Your task to perform on an android device: Go to Maps Image 0: 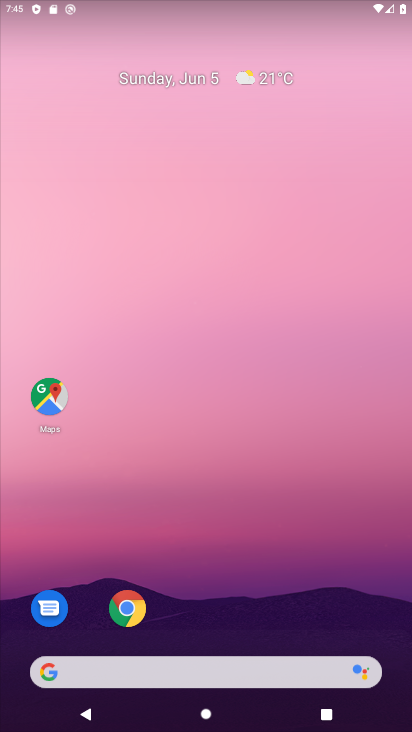
Step 0: click (45, 387)
Your task to perform on an android device: Go to Maps Image 1: 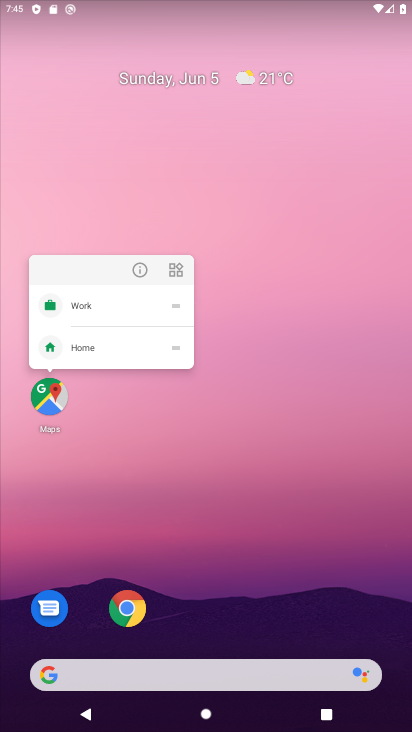
Step 1: click (45, 387)
Your task to perform on an android device: Go to Maps Image 2: 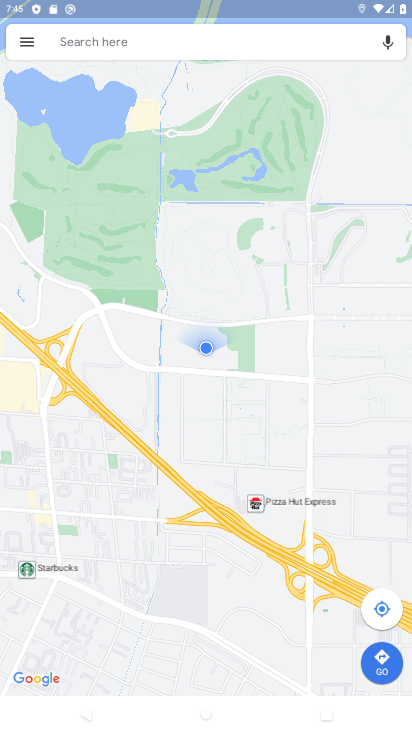
Step 2: task complete